Your task to perform on an android device: add a contact Image 0: 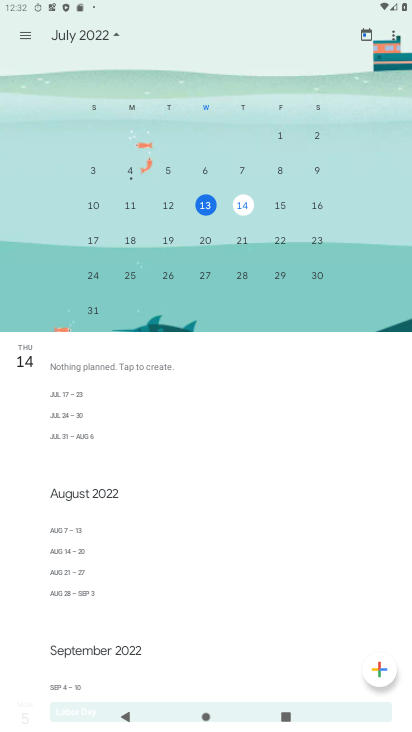
Step 0: press home button
Your task to perform on an android device: add a contact Image 1: 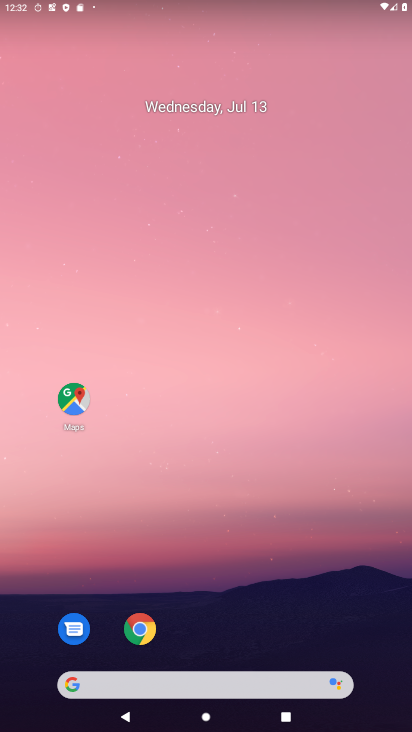
Step 1: drag from (187, 652) to (170, 261)
Your task to perform on an android device: add a contact Image 2: 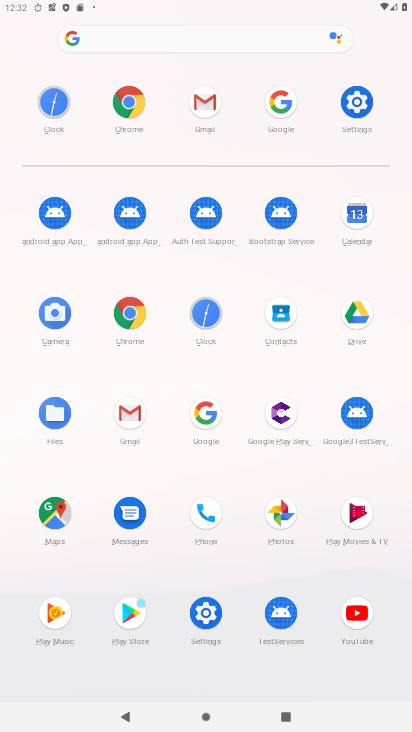
Step 2: click (290, 317)
Your task to perform on an android device: add a contact Image 3: 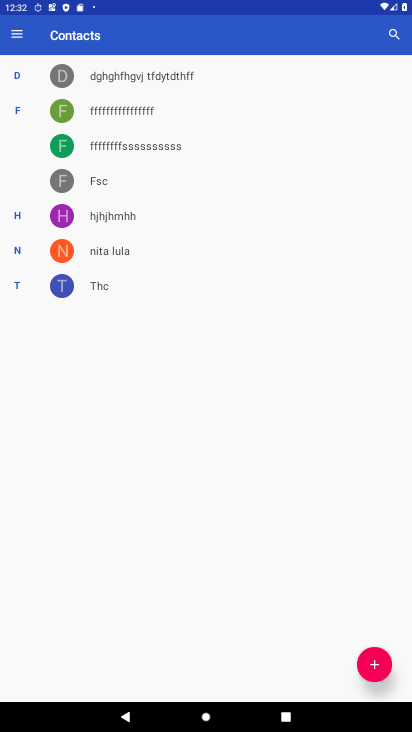
Step 3: click (371, 670)
Your task to perform on an android device: add a contact Image 4: 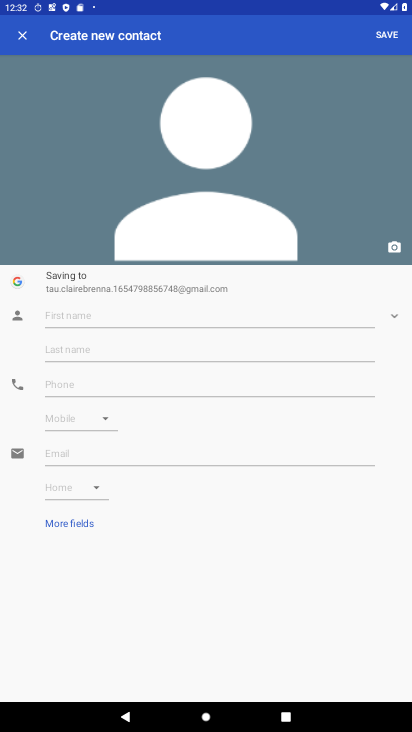
Step 4: click (152, 316)
Your task to perform on an android device: add a contact Image 5: 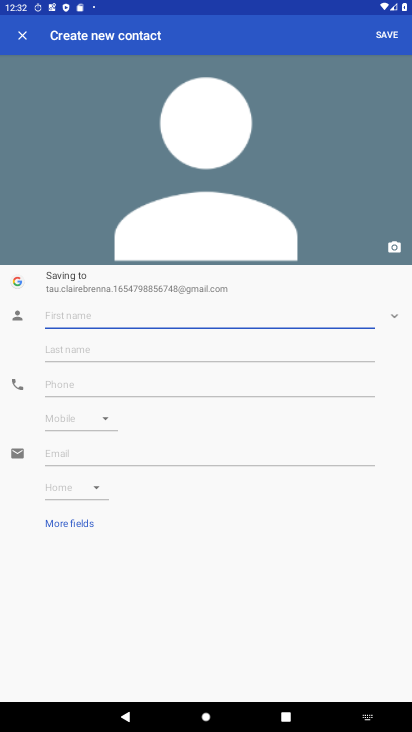
Step 5: type "thfg"
Your task to perform on an android device: add a contact Image 6: 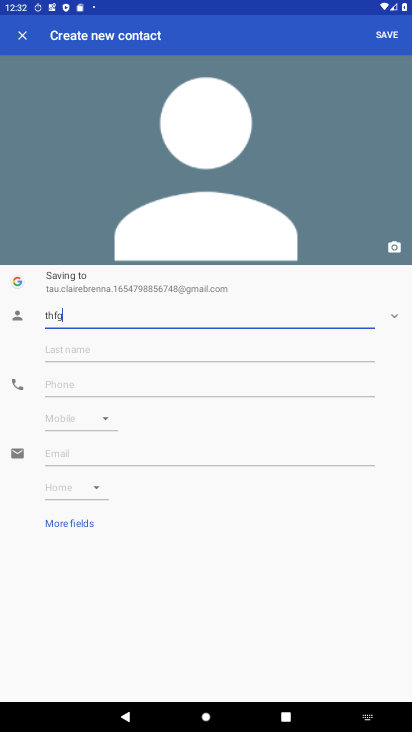
Step 6: click (79, 387)
Your task to perform on an android device: add a contact Image 7: 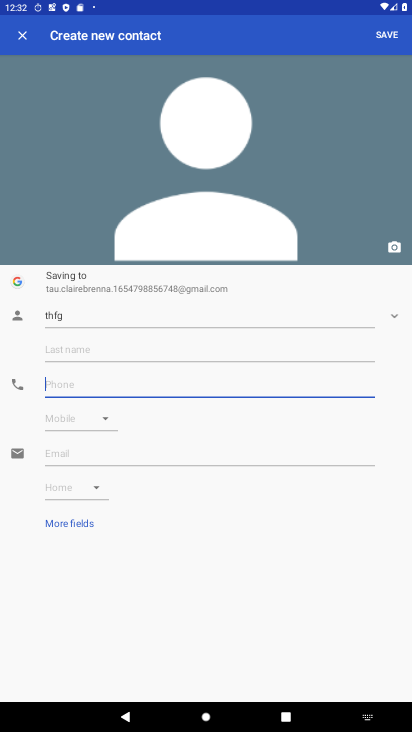
Step 7: type "86585675465"
Your task to perform on an android device: add a contact Image 8: 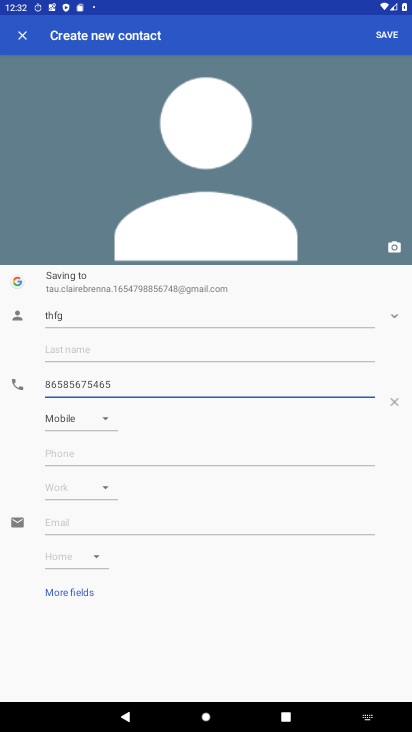
Step 8: click (385, 37)
Your task to perform on an android device: add a contact Image 9: 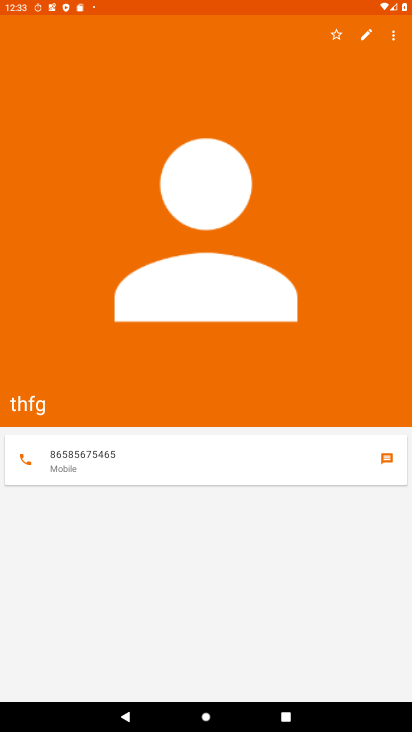
Step 9: task complete